Your task to perform on an android device: Open calendar and show me the first week of next month Image 0: 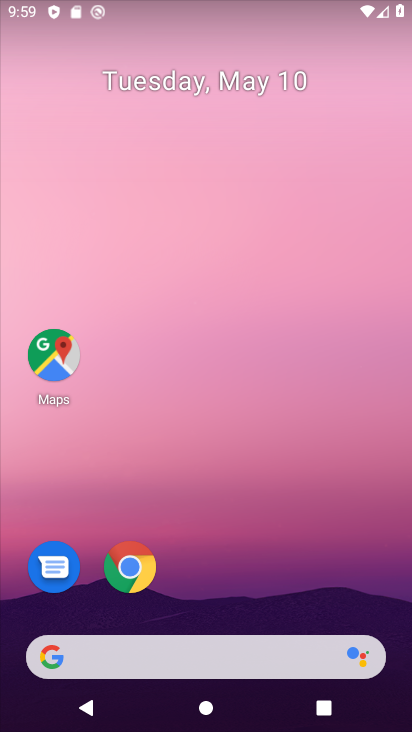
Step 0: drag from (199, 611) to (251, 106)
Your task to perform on an android device: Open calendar and show me the first week of next month Image 1: 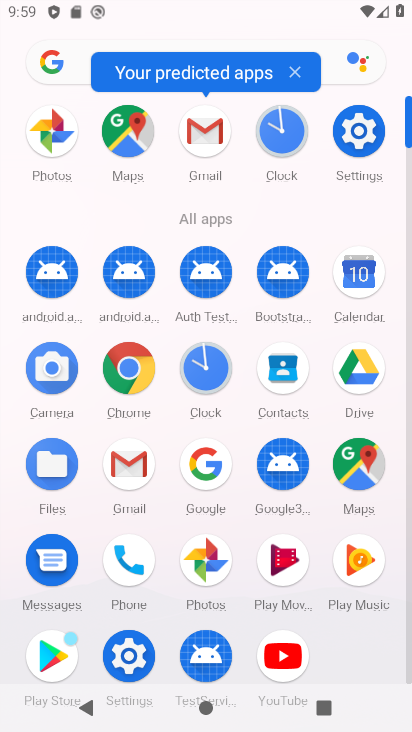
Step 1: click (359, 278)
Your task to perform on an android device: Open calendar and show me the first week of next month Image 2: 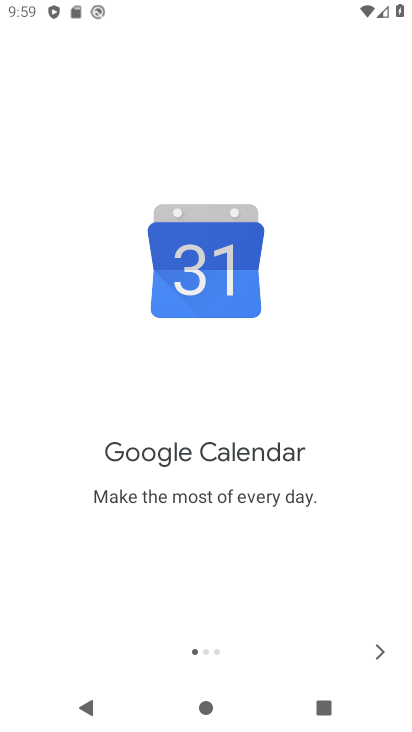
Step 2: click (382, 646)
Your task to perform on an android device: Open calendar and show me the first week of next month Image 3: 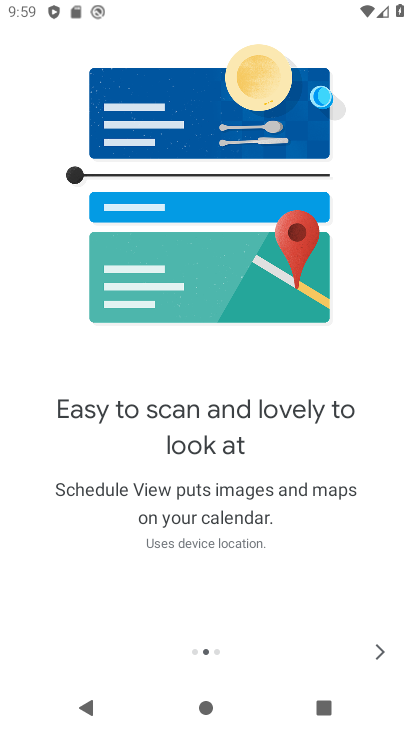
Step 3: click (382, 646)
Your task to perform on an android device: Open calendar and show me the first week of next month Image 4: 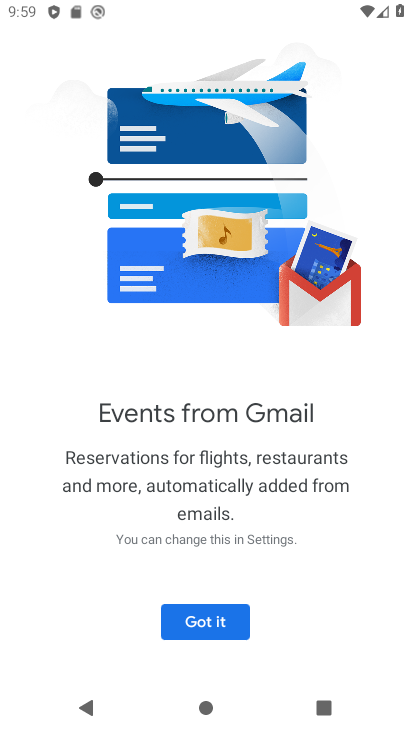
Step 4: click (197, 631)
Your task to perform on an android device: Open calendar and show me the first week of next month Image 5: 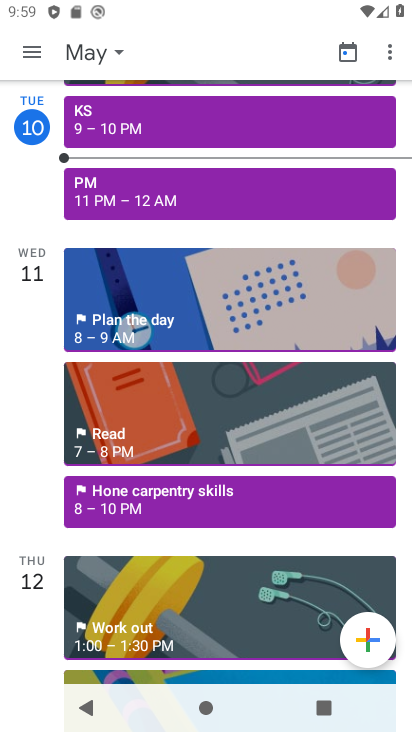
Step 5: click (26, 58)
Your task to perform on an android device: Open calendar and show me the first week of next month Image 6: 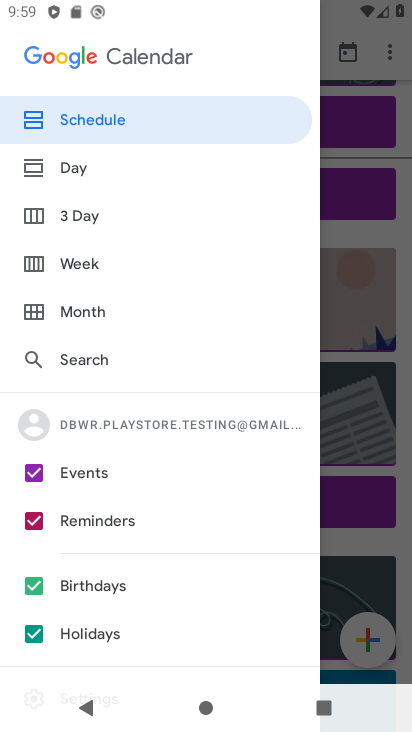
Step 6: click (93, 256)
Your task to perform on an android device: Open calendar and show me the first week of next month Image 7: 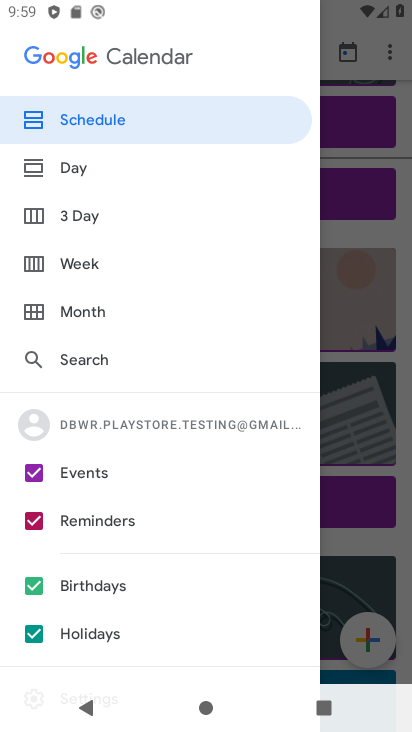
Step 7: click (72, 269)
Your task to perform on an android device: Open calendar and show me the first week of next month Image 8: 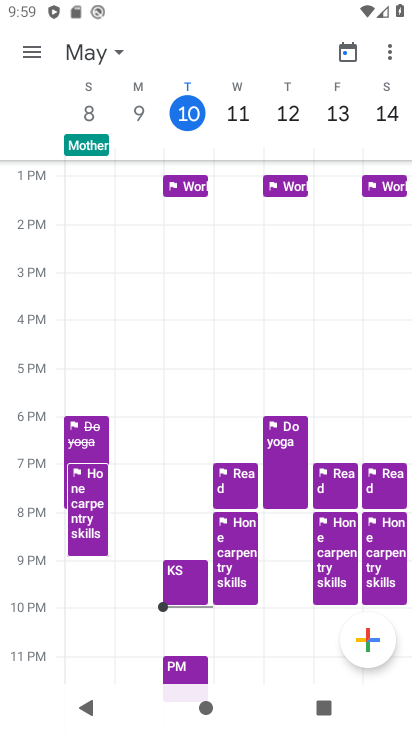
Step 8: click (88, 49)
Your task to perform on an android device: Open calendar and show me the first week of next month Image 9: 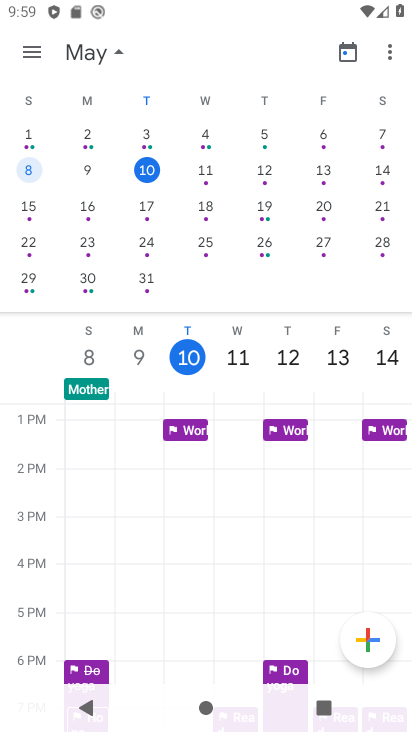
Step 9: drag from (385, 193) to (16, 198)
Your task to perform on an android device: Open calendar and show me the first week of next month Image 10: 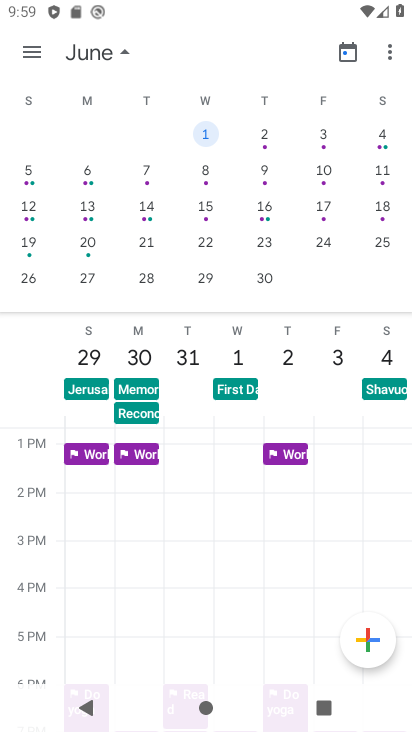
Step 10: click (123, 49)
Your task to perform on an android device: Open calendar and show me the first week of next month Image 11: 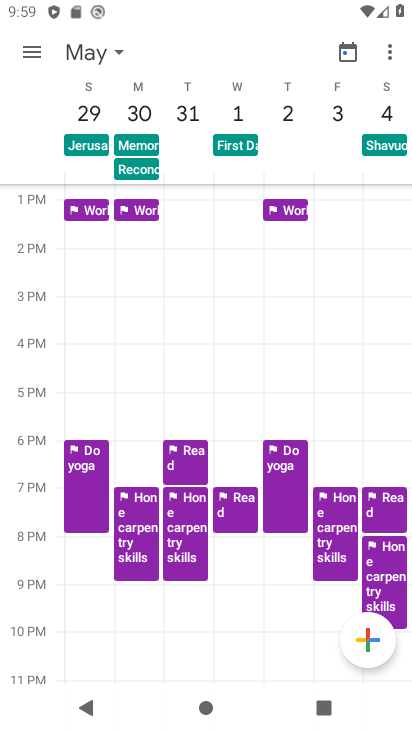
Step 11: task complete